Your task to perform on an android device: set the timer Image 0: 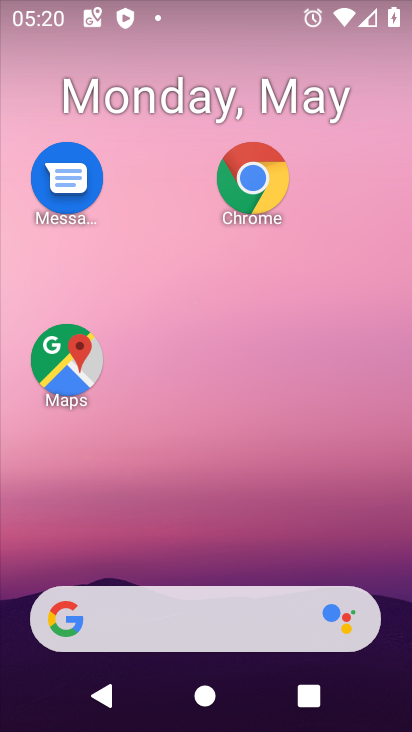
Step 0: drag from (227, 552) to (181, 43)
Your task to perform on an android device: set the timer Image 1: 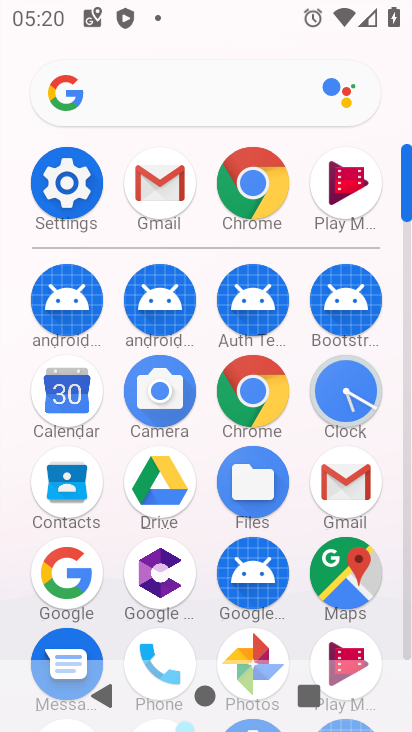
Step 1: click (355, 400)
Your task to perform on an android device: set the timer Image 2: 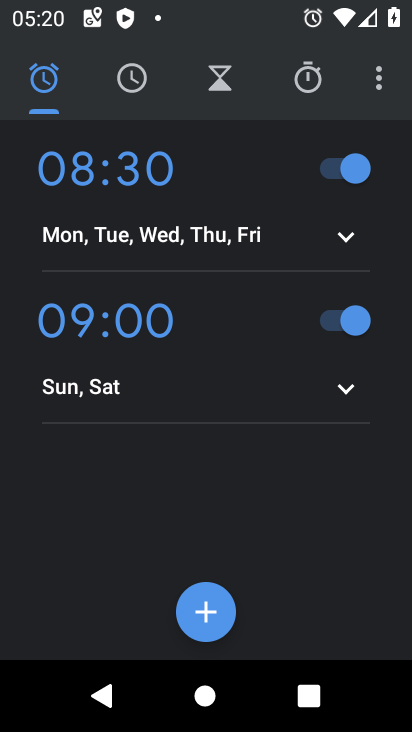
Step 2: click (226, 84)
Your task to perform on an android device: set the timer Image 3: 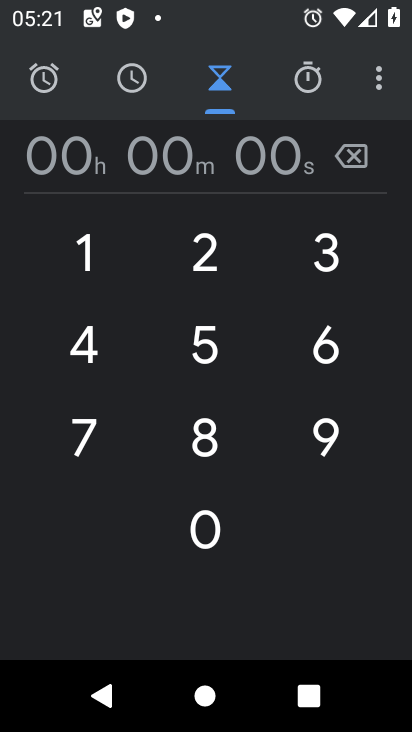
Step 3: click (204, 258)
Your task to perform on an android device: set the timer Image 4: 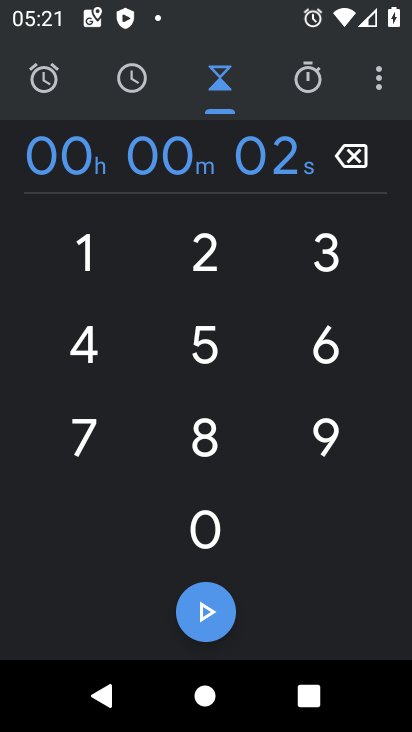
Step 4: click (212, 530)
Your task to perform on an android device: set the timer Image 5: 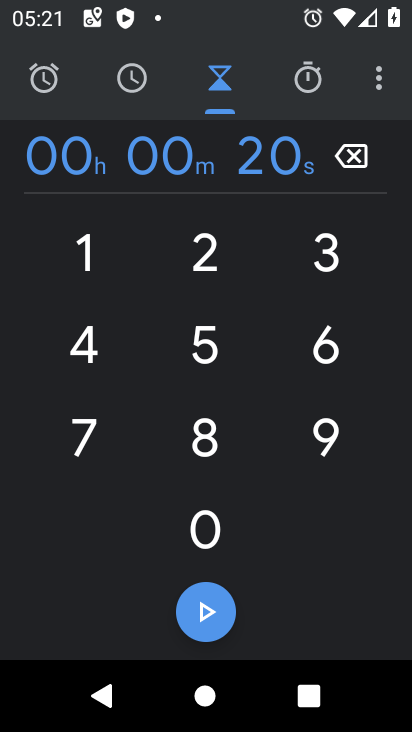
Step 5: click (194, 255)
Your task to perform on an android device: set the timer Image 6: 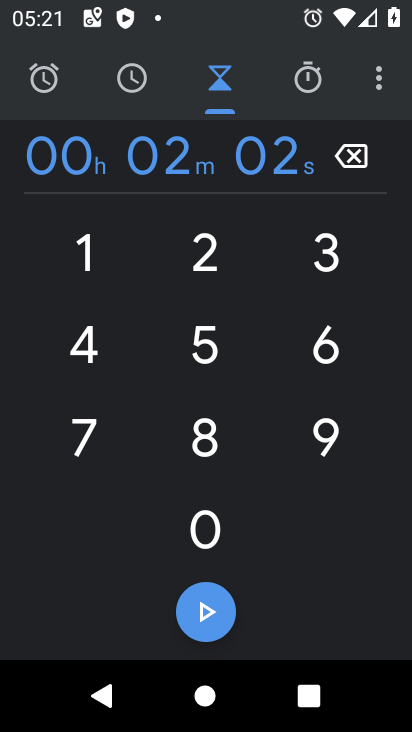
Step 6: click (206, 528)
Your task to perform on an android device: set the timer Image 7: 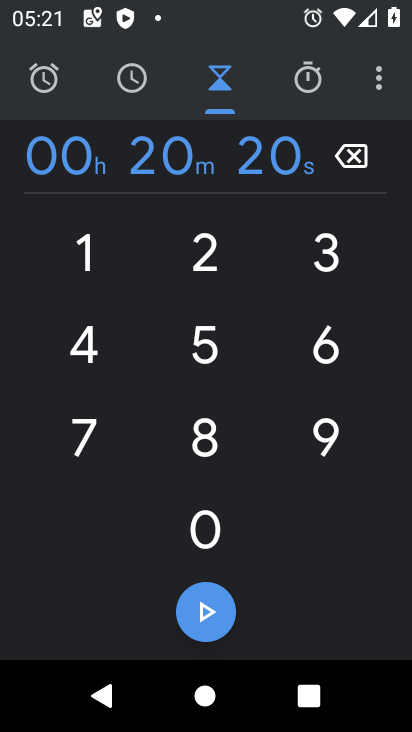
Step 7: click (215, 607)
Your task to perform on an android device: set the timer Image 8: 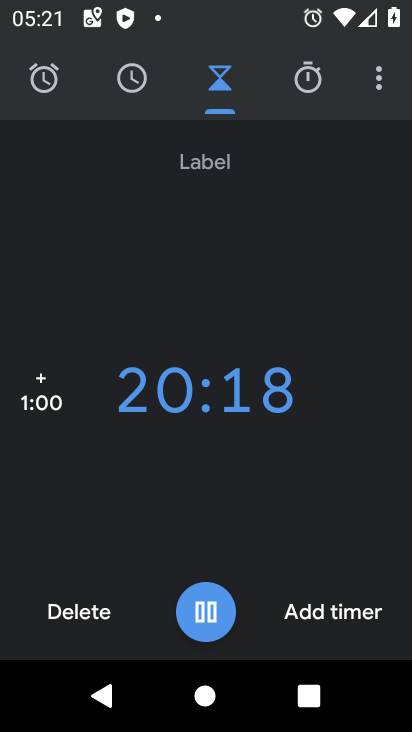
Step 8: click (311, 621)
Your task to perform on an android device: set the timer Image 9: 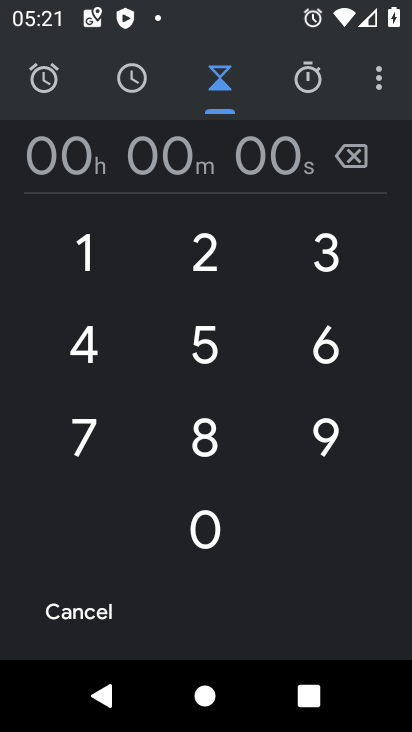
Step 9: task complete